Your task to perform on an android device: Open the calendar app, open the side menu, and click the "Day" option Image 0: 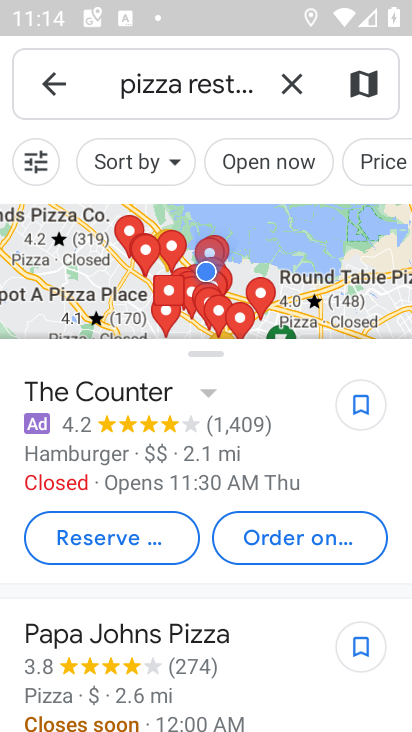
Step 0: press home button
Your task to perform on an android device: Open the calendar app, open the side menu, and click the "Day" option Image 1: 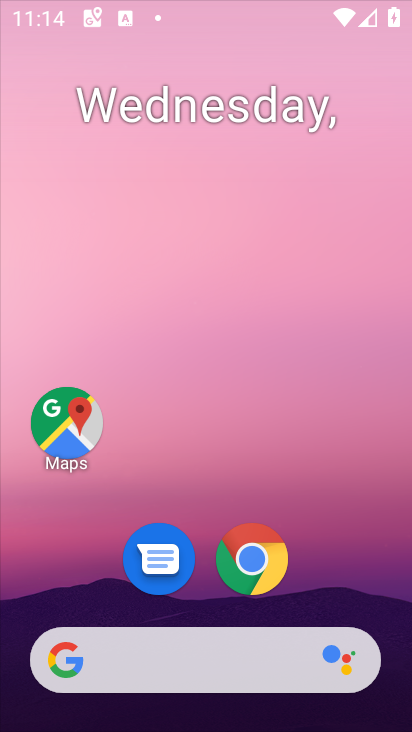
Step 1: drag from (243, 644) to (276, 223)
Your task to perform on an android device: Open the calendar app, open the side menu, and click the "Day" option Image 2: 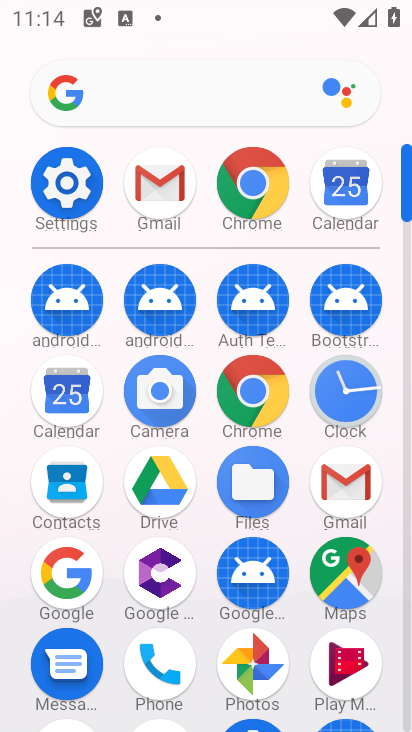
Step 2: click (70, 414)
Your task to perform on an android device: Open the calendar app, open the side menu, and click the "Day" option Image 3: 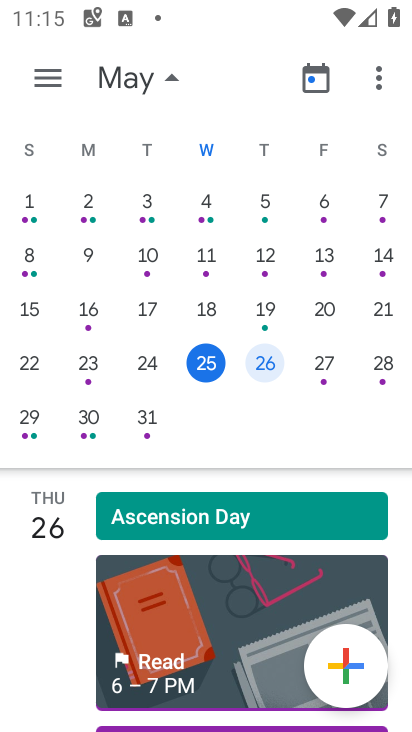
Step 3: click (41, 90)
Your task to perform on an android device: Open the calendar app, open the side menu, and click the "Day" option Image 4: 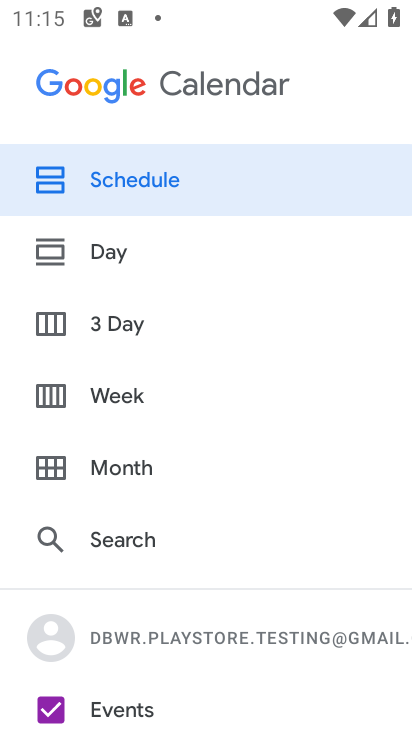
Step 4: click (129, 255)
Your task to perform on an android device: Open the calendar app, open the side menu, and click the "Day" option Image 5: 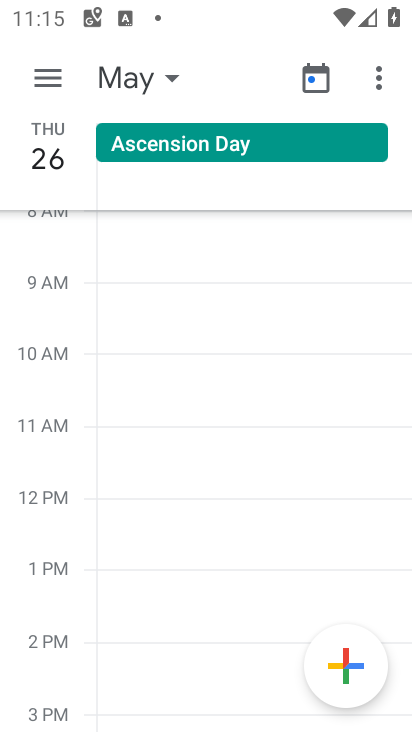
Step 5: task complete